Your task to perform on an android device: turn off notifications in google photos Image 0: 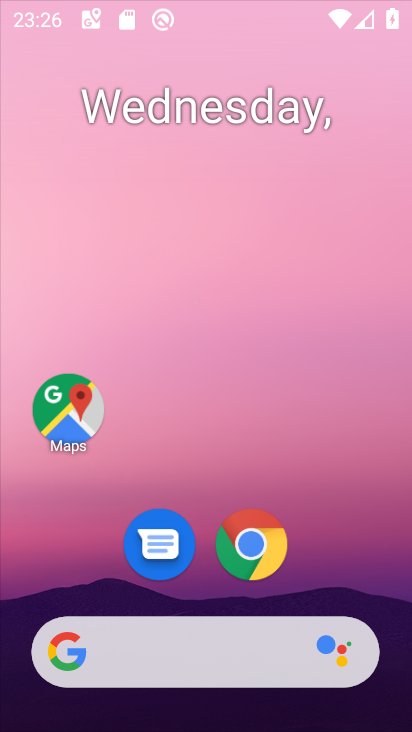
Step 0: click (264, 111)
Your task to perform on an android device: turn off notifications in google photos Image 1: 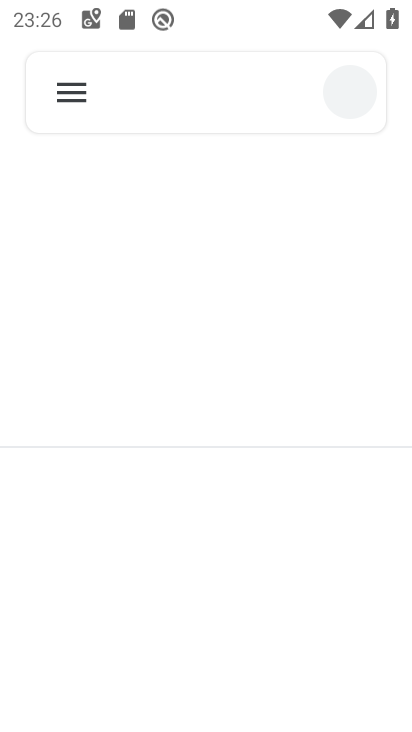
Step 1: press home button
Your task to perform on an android device: turn off notifications in google photos Image 2: 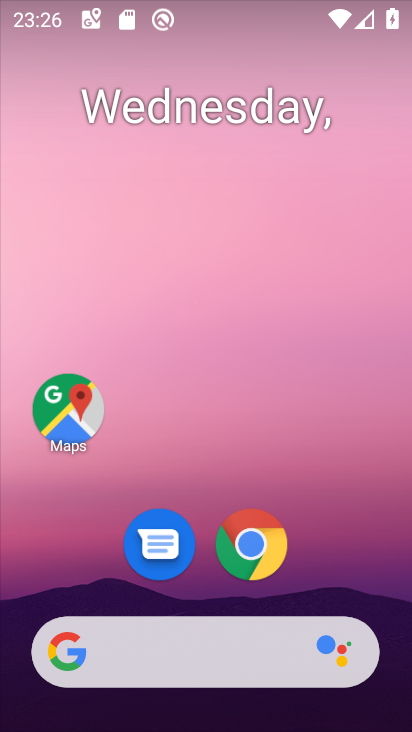
Step 2: drag from (299, 572) to (306, 37)
Your task to perform on an android device: turn off notifications in google photos Image 3: 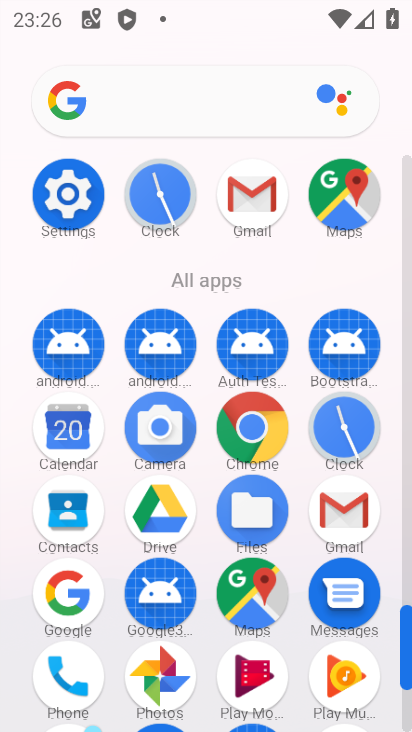
Step 3: drag from (401, 619) to (386, 728)
Your task to perform on an android device: turn off notifications in google photos Image 4: 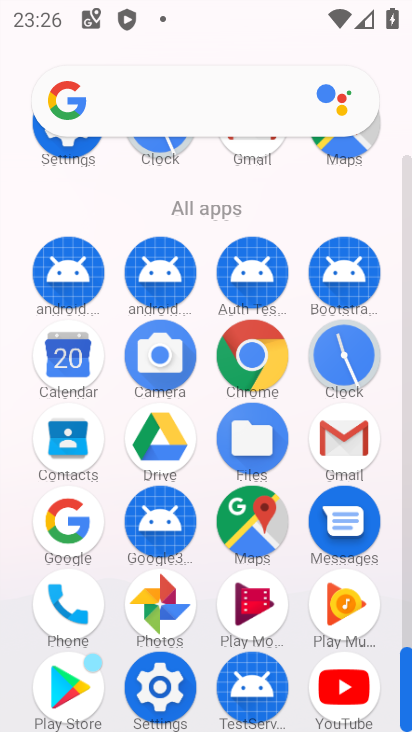
Step 4: click (154, 616)
Your task to perform on an android device: turn off notifications in google photos Image 5: 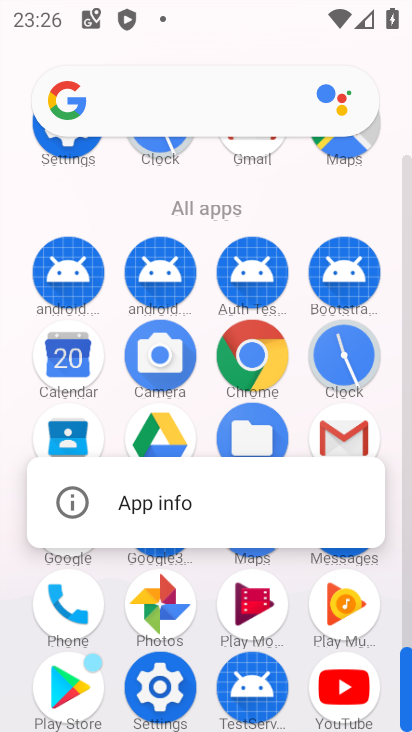
Step 5: click (160, 505)
Your task to perform on an android device: turn off notifications in google photos Image 6: 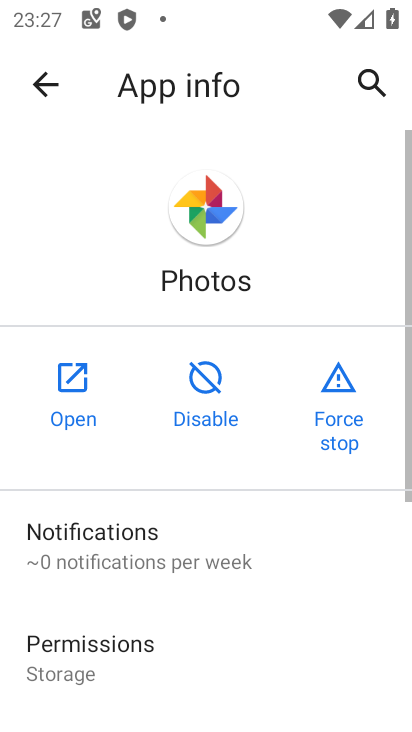
Step 6: click (169, 567)
Your task to perform on an android device: turn off notifications in google photos Image 7: 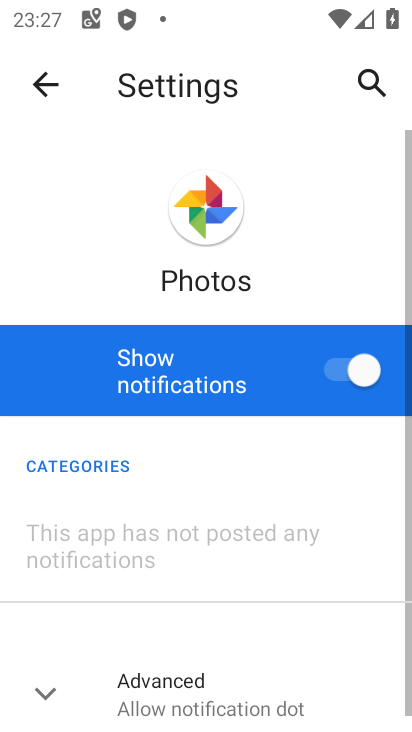
Step 7: click (352, 359)
Your task to perform on an android device: turn off notifications in google photos Image 8: 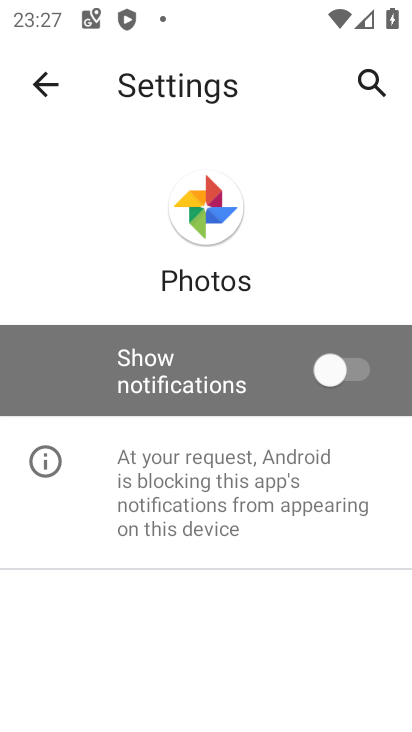
Step 8: task complete